Your task to perform on an android device: Do I have any events today? Image 0: 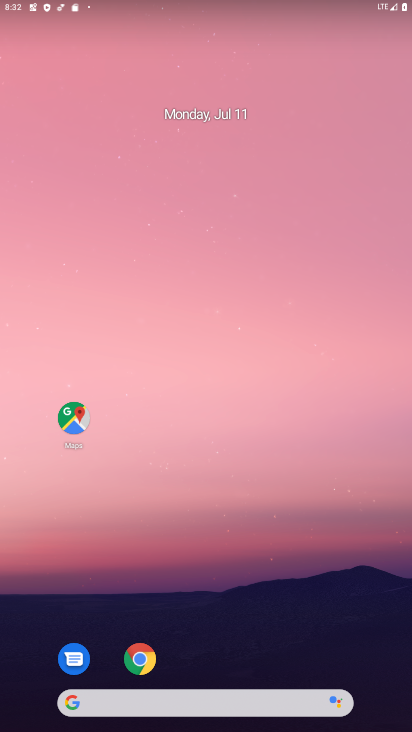
Step 0: drag from (231, 678) to (12, 229)
Your task to perform on an android device: Do I have any events today? Image 1: 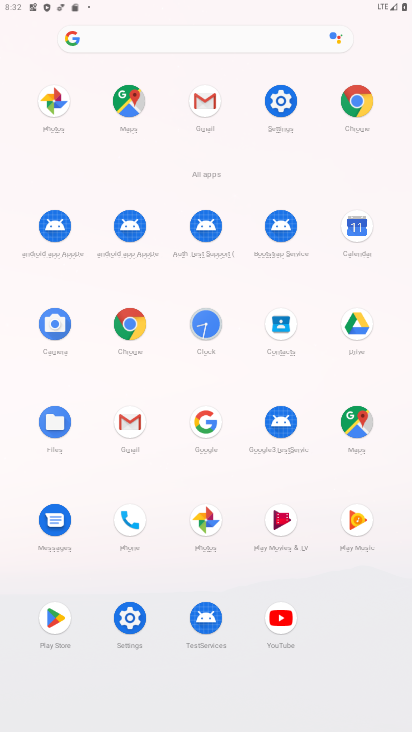
Step 1: click (355, 226)
Your task to perform on an android device: Do I have any events today? Image 2: 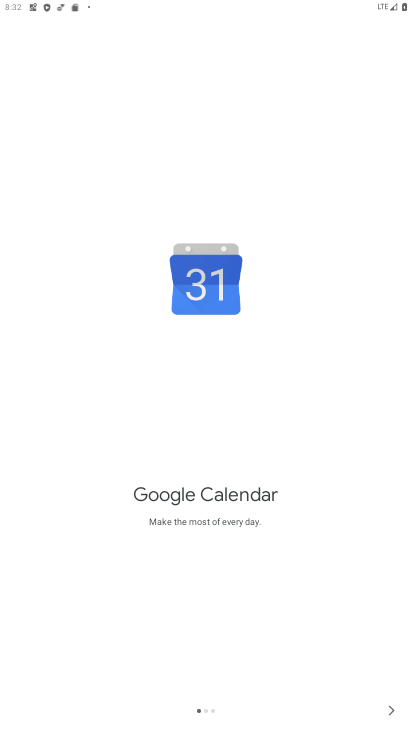
Step 2: click (375, 708)
Your task to perform on an android device: Do I have any events today? Image 3: 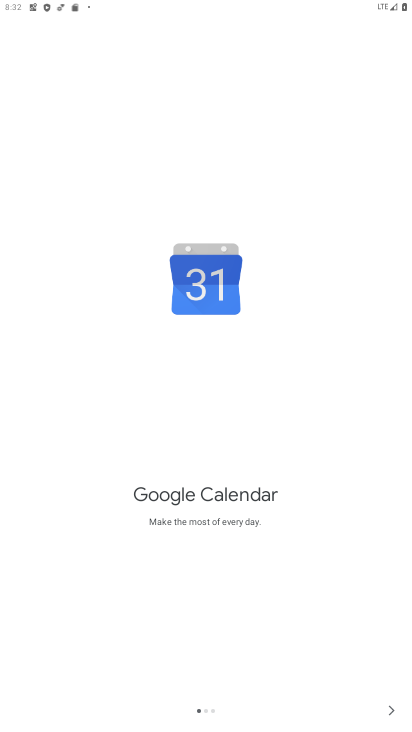
Step 3: click (400, 706)
Your task to perform on an android device: Do I have any events today? Image 4: 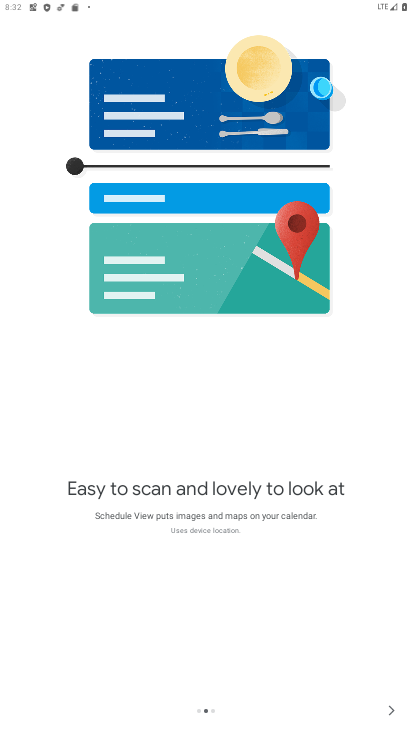
Step 4: click (371, 709)
Your task to perform on an android device: Do I have any events today? Image 5: 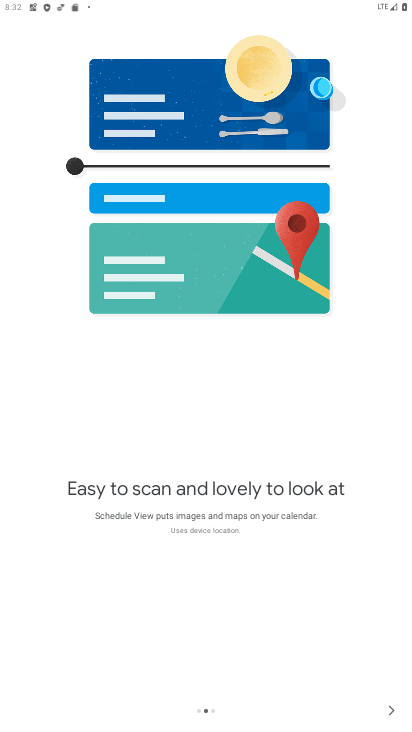
Step 5: click (390, 705)
Your task to perform on an android device: Do I have any events today? Image 6: 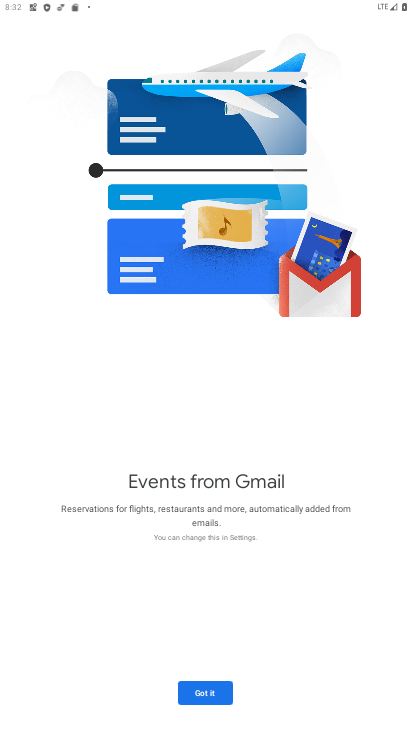
Step 6: click (207, 684)
Your task to perform on an android device: Do I have any events today? Image 7: 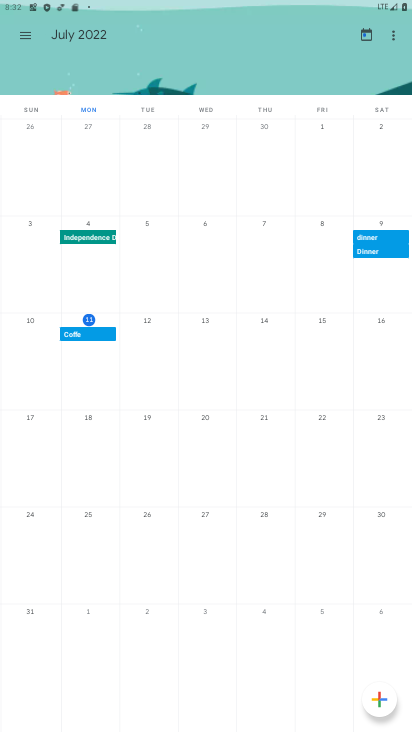
Step 7: click (31, 30)
Your task to perform on an android device: Do I have any events today? Image 8: 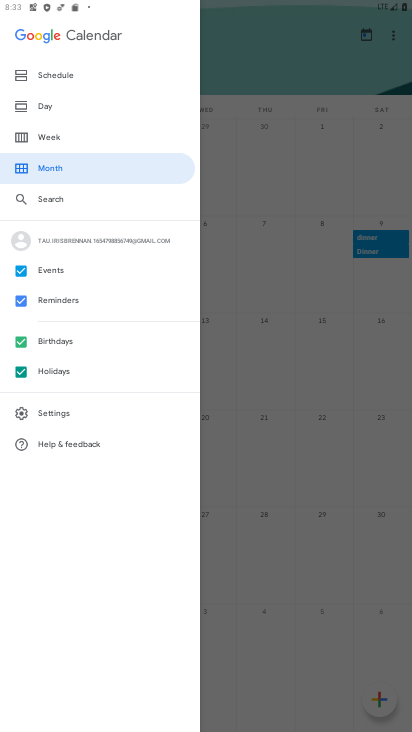
Step 8: click (59, 296)
Your task to perform on an android device: Do I have any events today? Image 9: 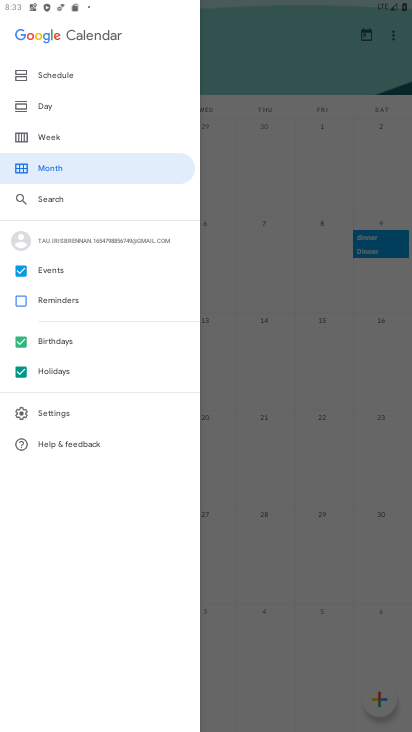
Step 9: click (55, 345)
Your task to perform on an android device: Do I have any events today? Image 10: 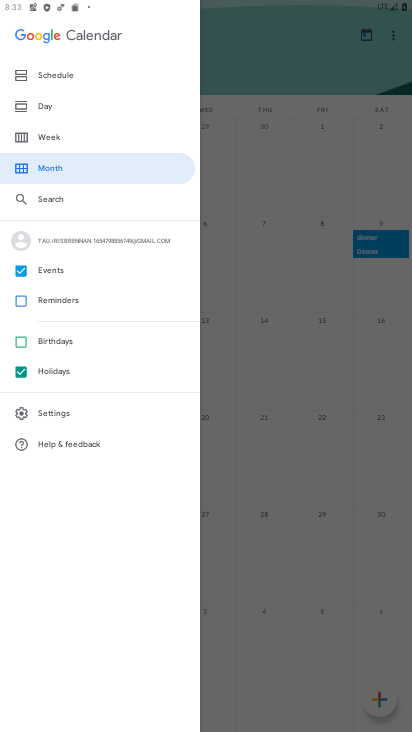
Step 10: click (55, 369)
Your task to perform on an android device: Do I have any events today? Image 11: 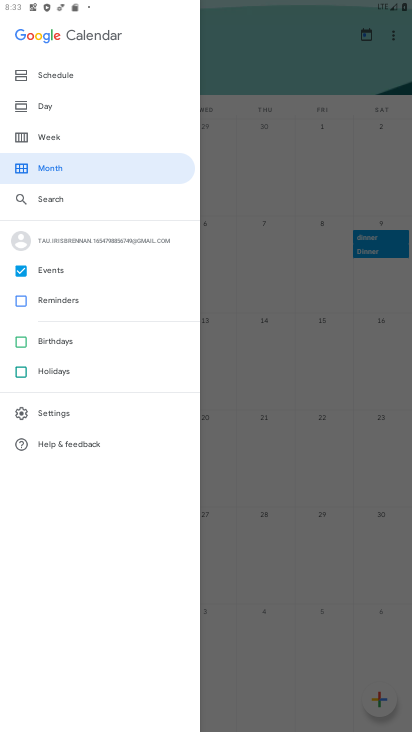
Step 11: click (47, 98)
Your task to perform on an android device: Do I have any events today? Image 12: 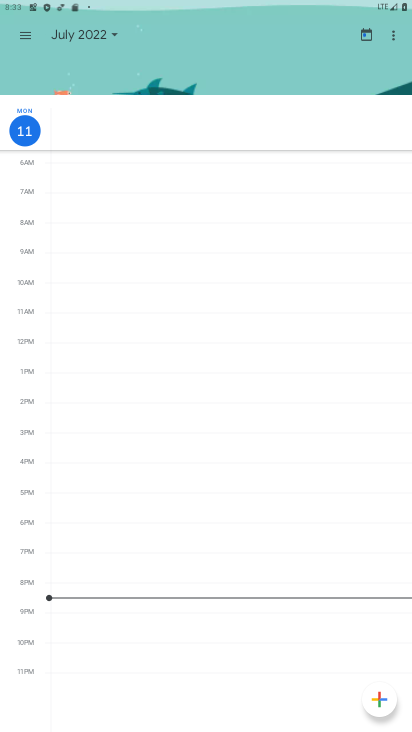
Step 12: task complete